Your task to perform on an android device: turn off picture-in-picture Image 0: 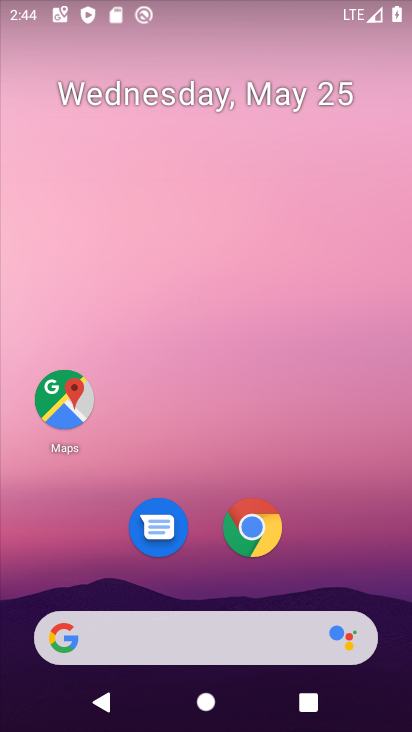
Step 0: drag from (185, 612) to (288, 15)
Your task to perform on an android device: turn off picture-in-picture Image 1: 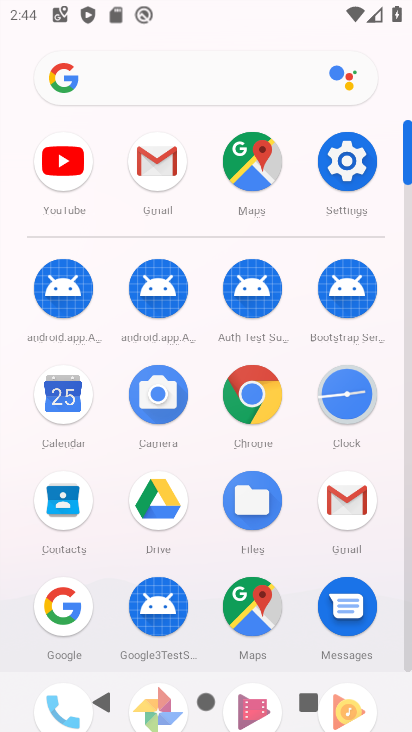
Step 1: click (361, 157)
Your task to perform on an android device: turn off picture-in-picture Image 2: 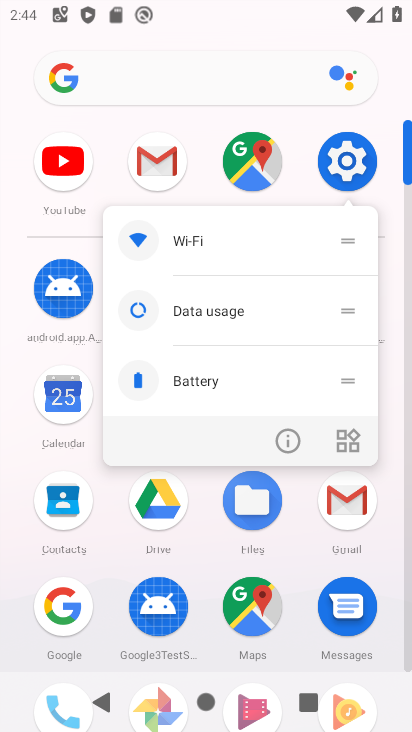
Step 2: click (281, 447)
Your task to perform on an android device: turn off picture-in-picture Image 3: 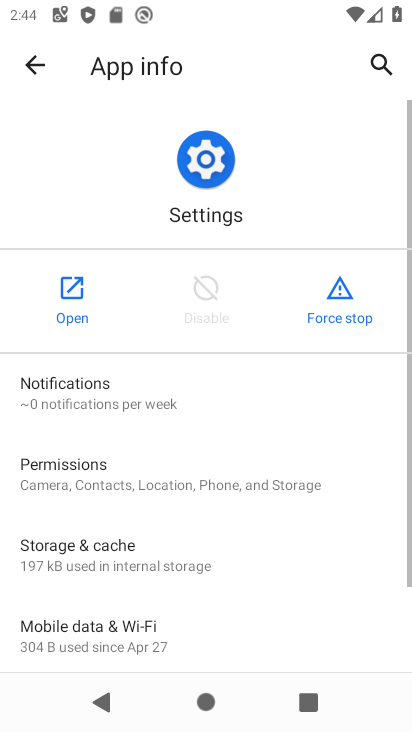
Step 3: click (73, 284)
Your task to perform on an android device: turn off picture-in-picture Image 4: 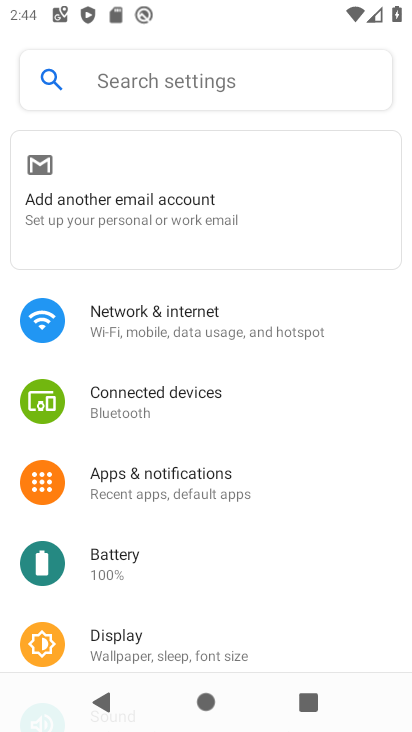
Step 4: drag from (189, 578) to (268, 212)
Your task to perform on an android device: turn off picture-in-picture Image 5: 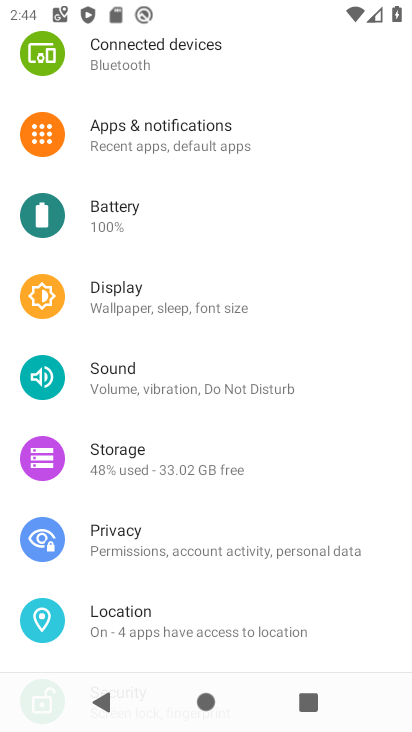
Step 5: click (196, 138)
Your task to perform on an android device: turn off picture-in-picture Image 6: 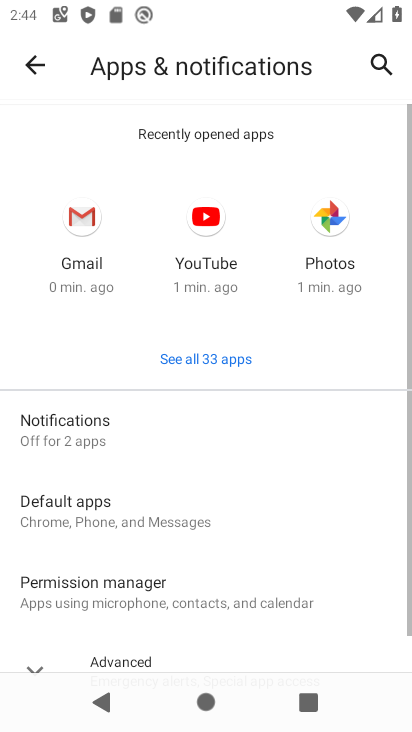
Step 6: drag from (224, 502) to (275, 198)
Your task to perform on an android device: turn off picture-in-picture Image 7: 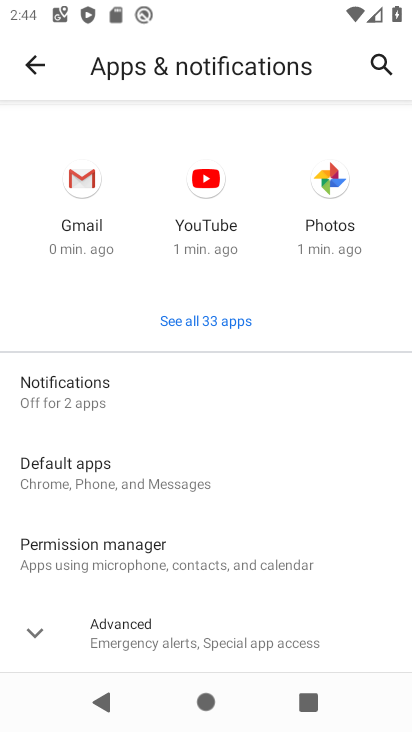
Step 7: click (137, 400)
Your task to perform on an android device: turn off picture-in-picture Image 8: 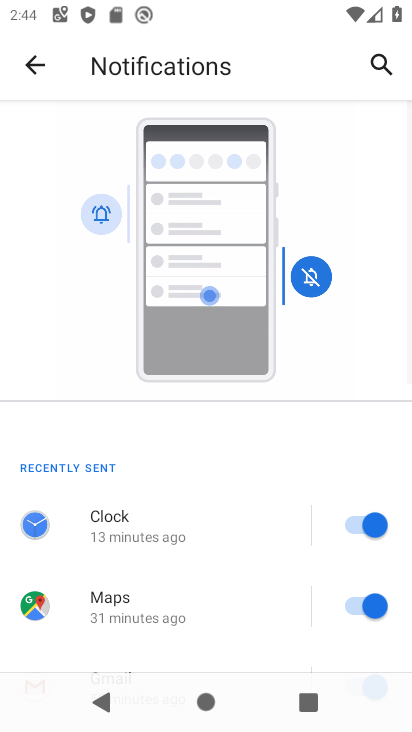
Step 8: drag from (282, 511) to (322, 220)
Your task to perform on an android device: turn off picture-in-picture Image 9: 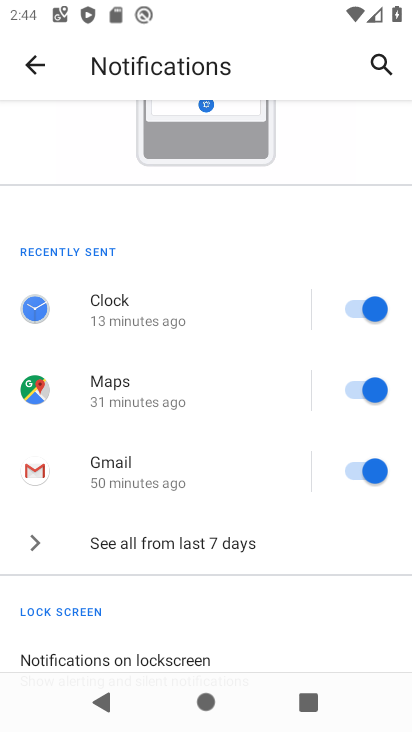
Step 9: drag from (205, 587) to (237, 236)
Your task to perform on an android device: turn off picture-in-picture Image 10: 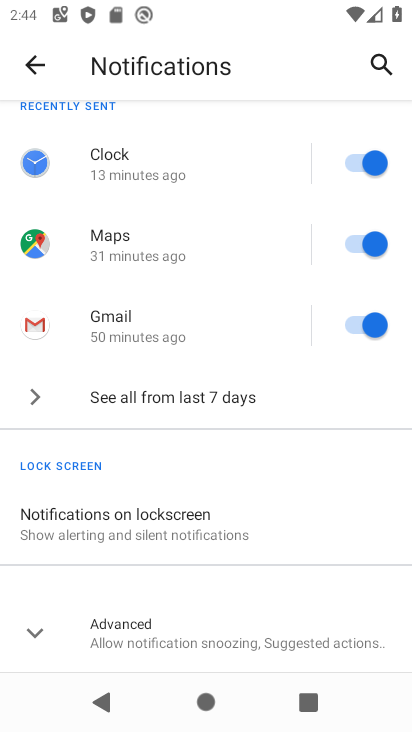
Step 10: click (177, 631)
Your task to perform on an android device: turn off picture-in-picture Image 11: 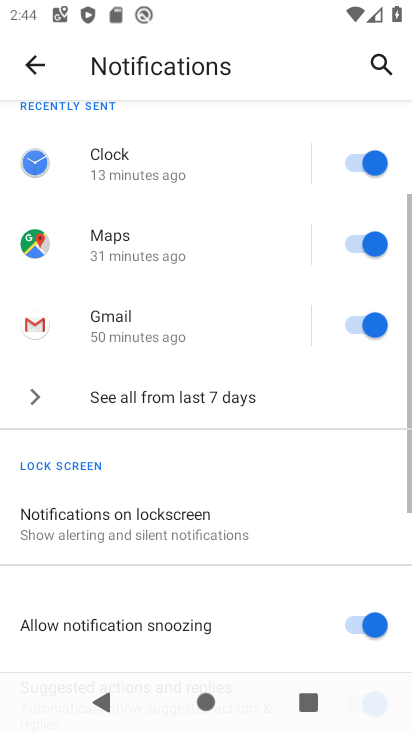
Step 11: drag from (244, 598) to (310, 84)
Your task to perform on an android device: turn off picture-in-picture Image 12: 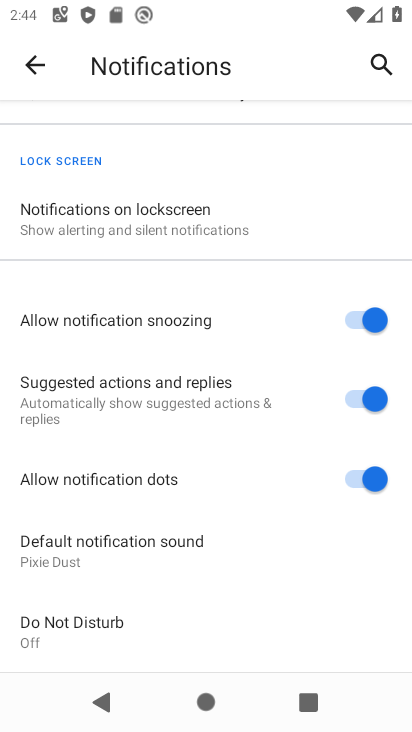
Step 12: drag from (250, 518) to (258, 182)
Your task to perform on an android device: turn off picture-in-picture Image 13: 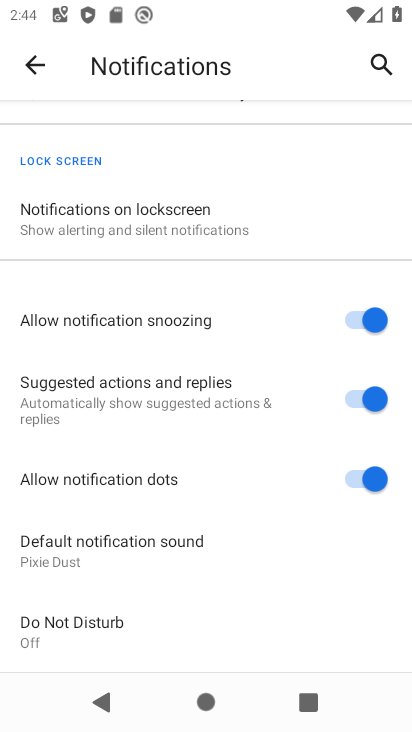
Step 13: drag from (207, 178) to (278, 718)
Your task to perform on an android device: turn off picture-in-picture Image 14: 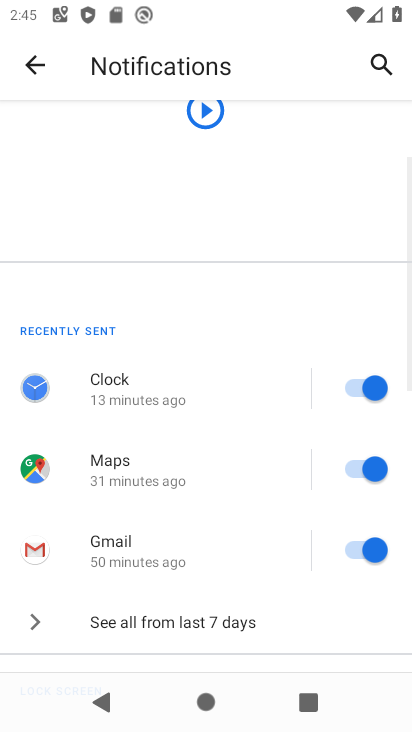
Step 14: click (15, 70)
Your task to perform on an android device: turn off picture-in-picture Image 15: 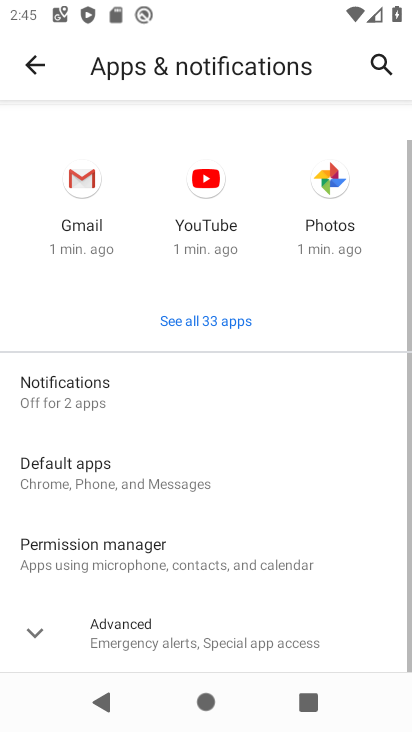
Step 15: drag from (213, 456) to (225, 73)
Your task to perform on an android device: turn off picture-in-picture Image 16: 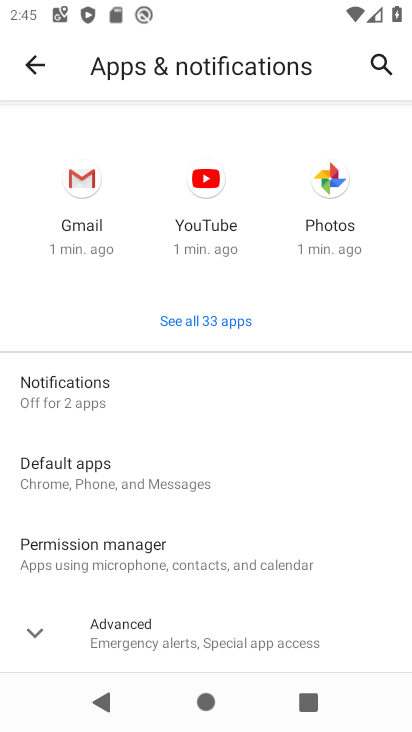
Step 16: click (35, 57)
Your task to perform on an android device: turn off picture-in-picture Image 17: 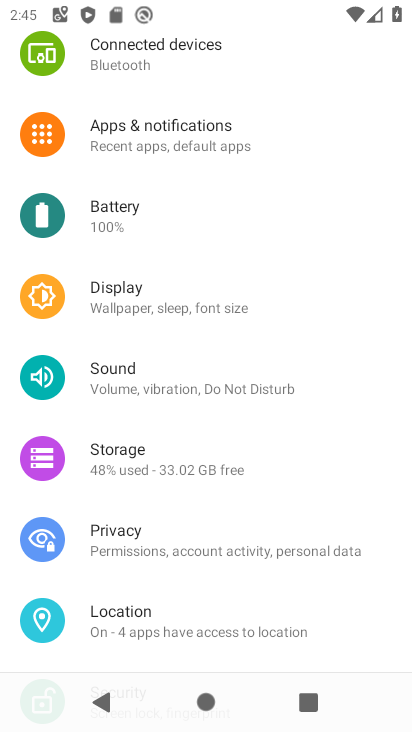
Step 17: drag from (121, 207) to (227, 454)
Your task to perform on an android device: turn off picture-in-picture Image 18: 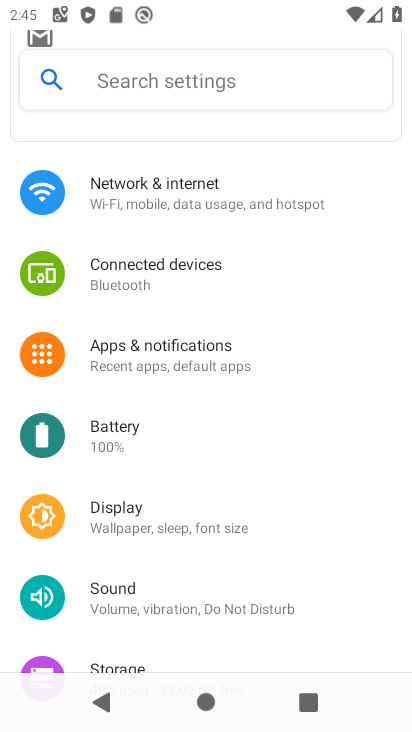
Step 18: click (202, 350)
Your task to perform on an android device: turn off picture-in-picture Image 19: 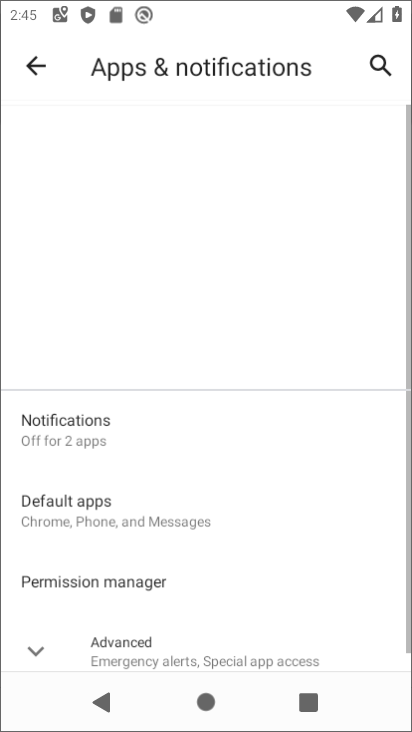
Step 19: drag from (279, 379) to (376, 107)
Your task to perform on an android device: turn off picture-in-picture Image 20: 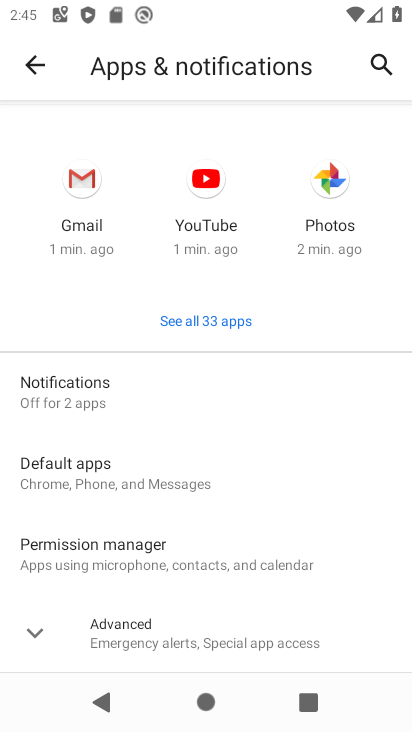
Step 20: click (155, 631)
Your task to perform on an android device: turn off picture-in-picture Image 21: 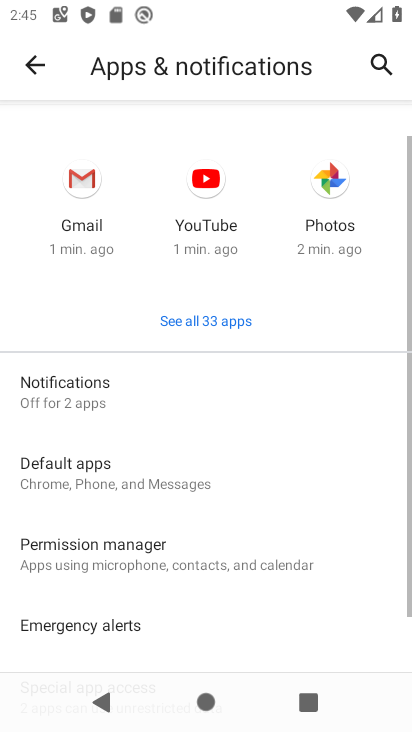
Step 21: drag from (245, 587) to (349, 120)
Your task to perform on an android device: turn off picture-in-picture Image 22: 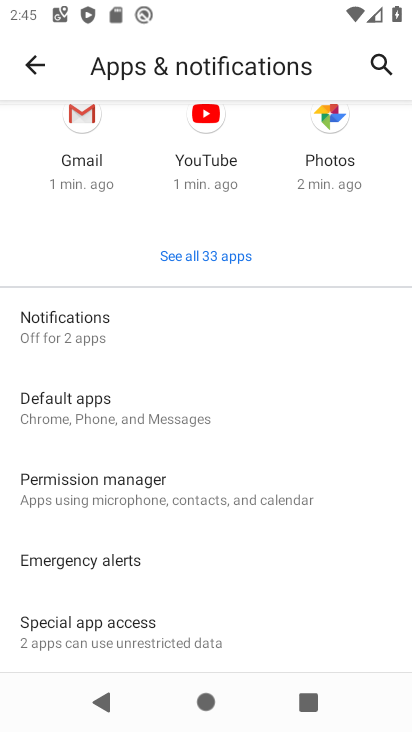
Step 22: click (185, 628)
Your task to perform on an android device: turn off picture-in-picture Image 23: 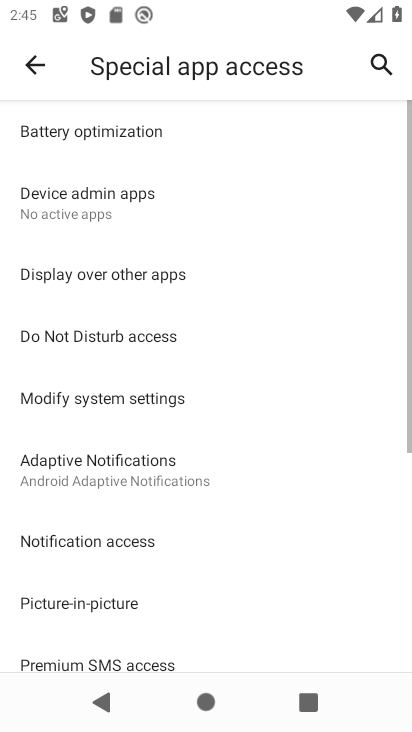
Step 23: drag from (187, 595) to (269, 219)
Your task to perform on an android device: turn off picture-in-picture Image 24: 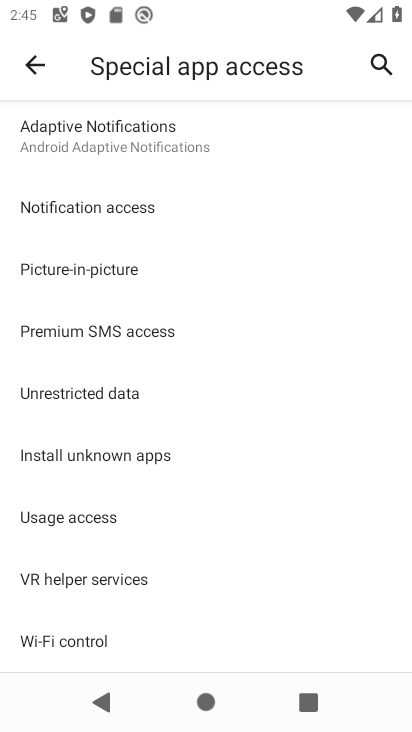
Step 24: click (124, 266)
Your task to perform on an android device: turn off picture-in-picture Image 25: 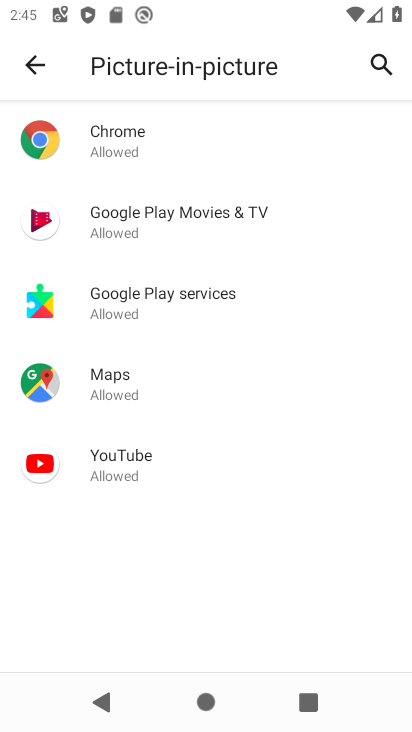
Step 25: task complete